Your task to perform on an android device: toggle notifications settings in the gmail app Image 0: 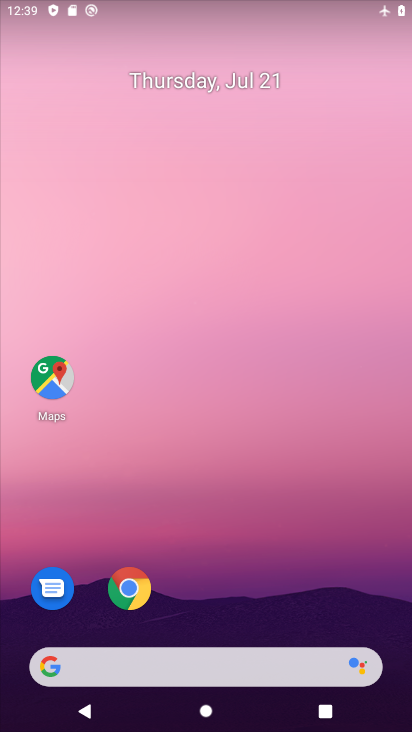
Step 0: drag from (260, 631) to (184, 121)
Your task to perform on an android device: toggle notifications settings in the gmail app Image 1: 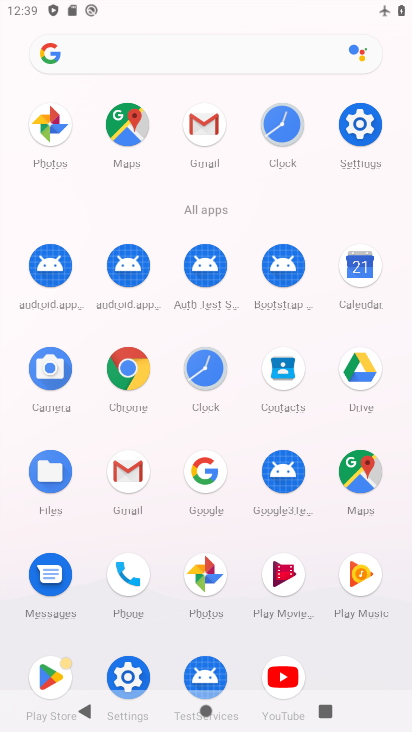
Step 1: click (194, 116)
Your task to perform on an android device: toggle notifications settings in the gmail app Image 2: 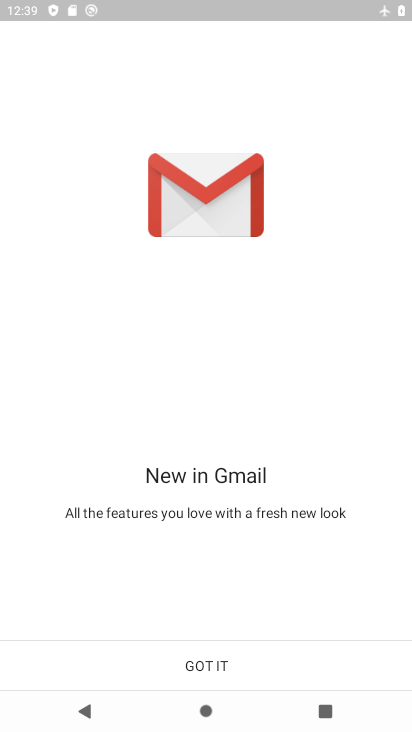
Step 2: click (228, 660)
Your task to perform on an android device: toggle notifications settings in the gmail app Image 3: 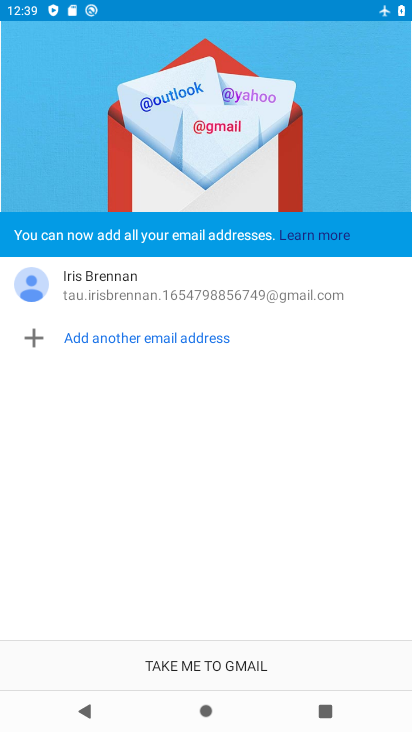
Step 3: click (225, 660)
Your task to perform on an android device: toggle notifications settings in the gmail app Image 4: 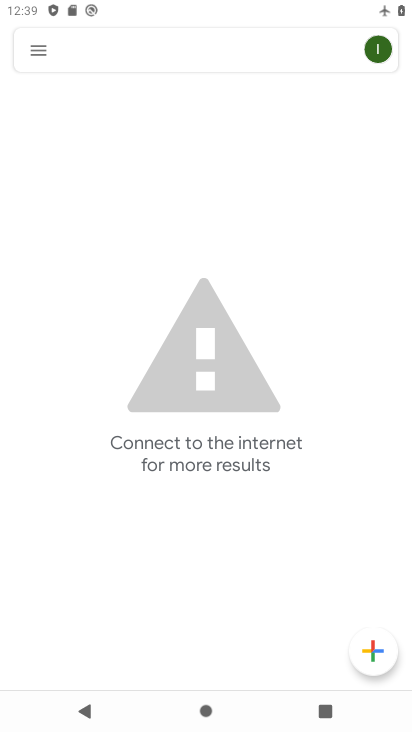
Step 4: click (34, 55)
Your task to perform on an android device: toggle notifications settings in the gmail app Image 5: 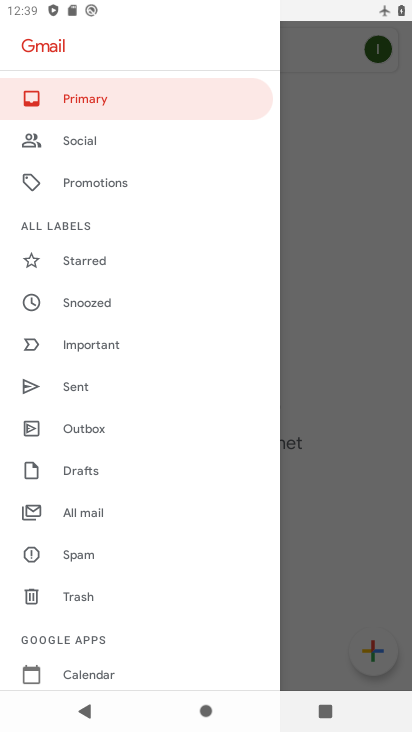
Step 5: drag from (99, 654) to (120, 173)
Your task to perform on an android device: toggle notifications settings in the gmail app Image 6: 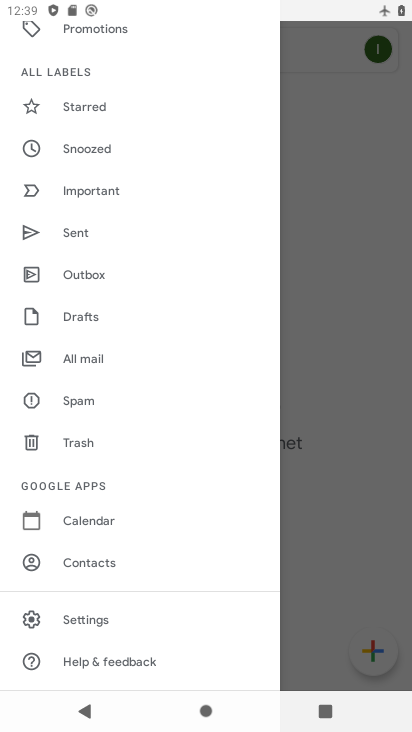
Step 6: click (125, 617)
Your task to perform on an android device: toggle notifications settings in the gmail app Image 7: 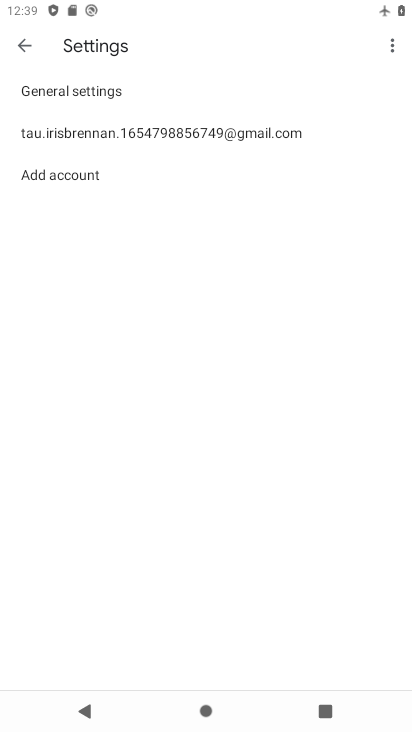
Step 7: click (186, 134)
Your task to perform on an android device: toggle notifications settings in the gmail app Image 8: 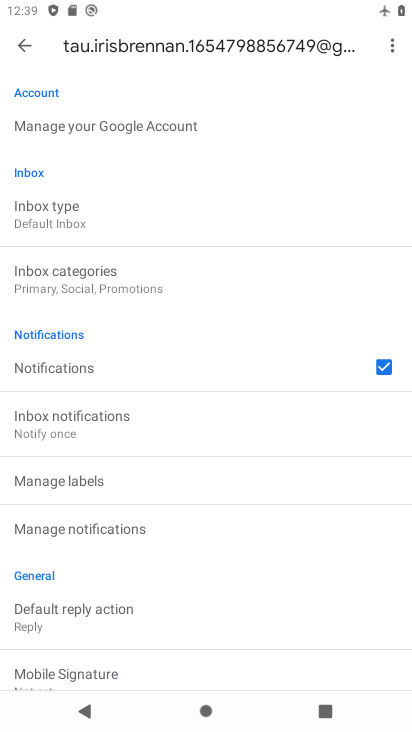
Step 8: click (120, 528)
Your task to perform on an android device: toggle notifications settings in the gmail app Image 9: 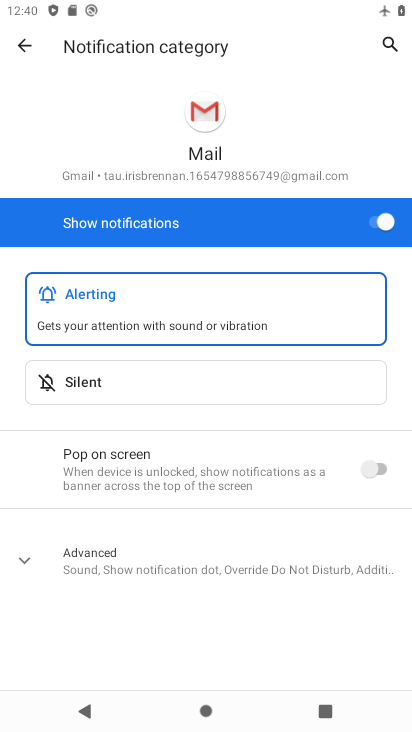
Step 9: click (183, 391)
Your task to perform on an android device: toggle notifications settings in the gmail app Image 10: 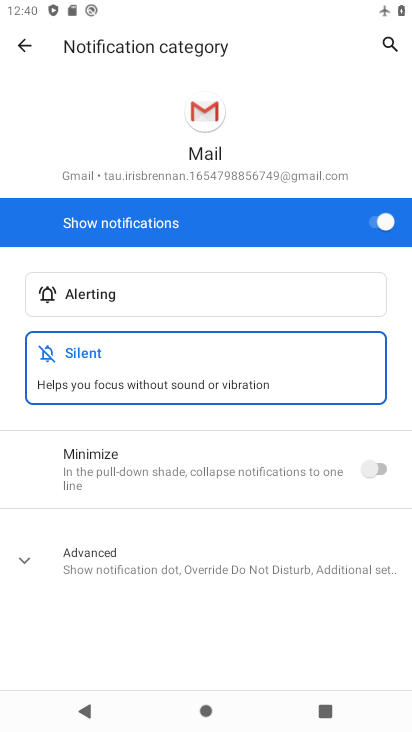
Step 10: click (362, 460)
Your task to perform on an android device: toggle notifications settings in the gmail app Image 11: 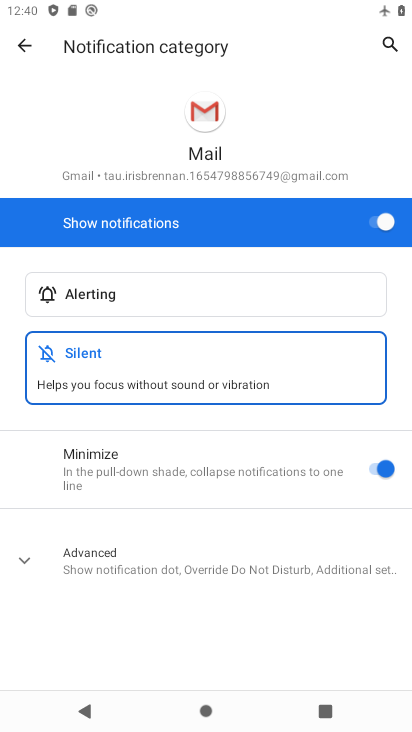
Step 11: task complete